Your task to perform on an android device: find photos in the google photos app Image 0: 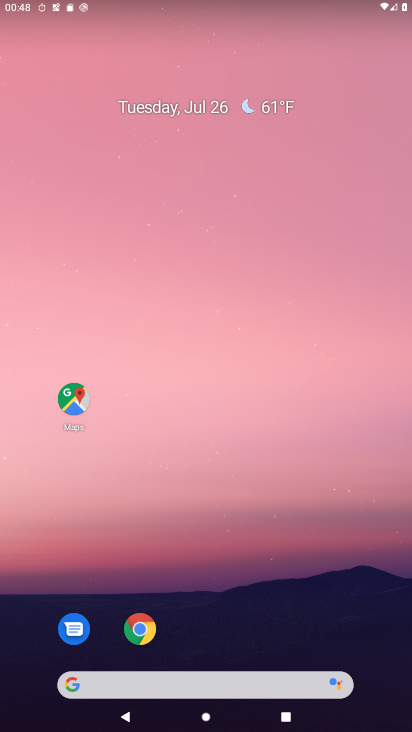
Step 0: drag from (215, 634) to (221, 112)
Your task to perform on an android device: find photos in the google photos app Image 1: 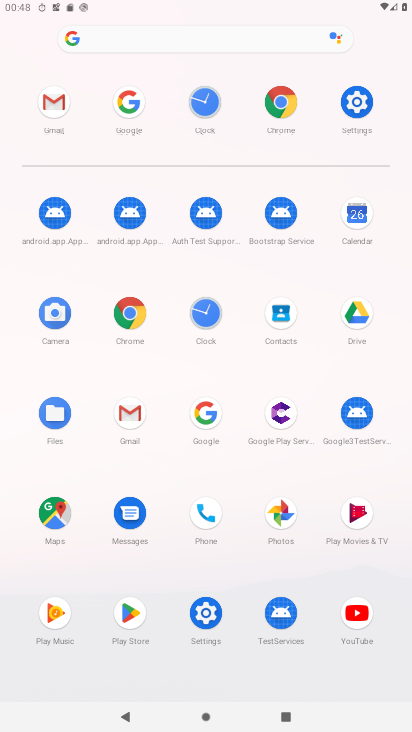
Step 1: click (272, 526)
Your task to perform on an android device: find photos in the google photos app Image 2: 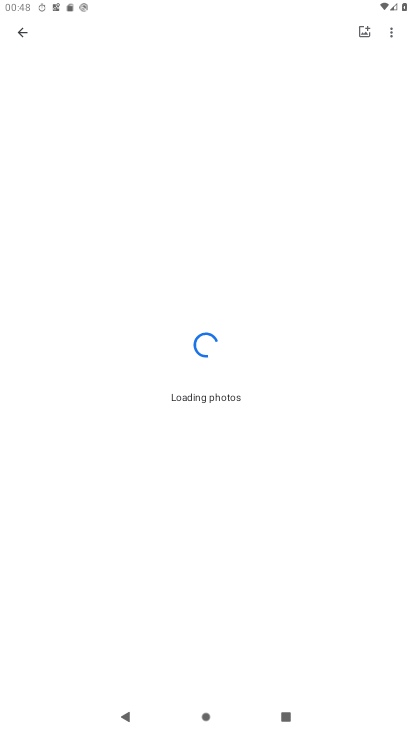
Step 2: click (29, 37)
Your task to perform on an android device: find photos in the google photos app Image 3: 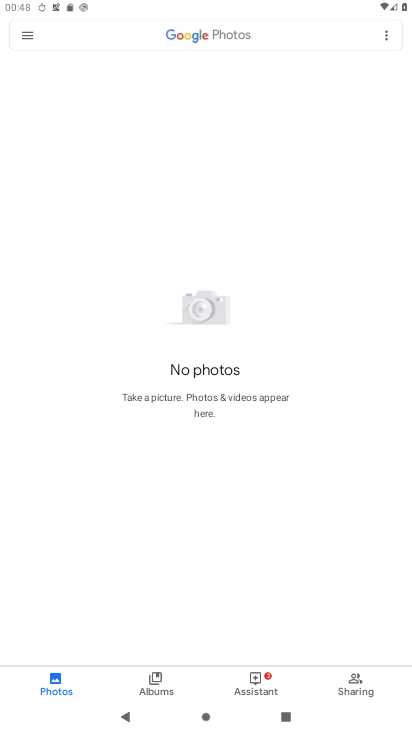
Step 3: click (150, 38)
Your task to perform on an android device: find photos in the google photos app Image 4: 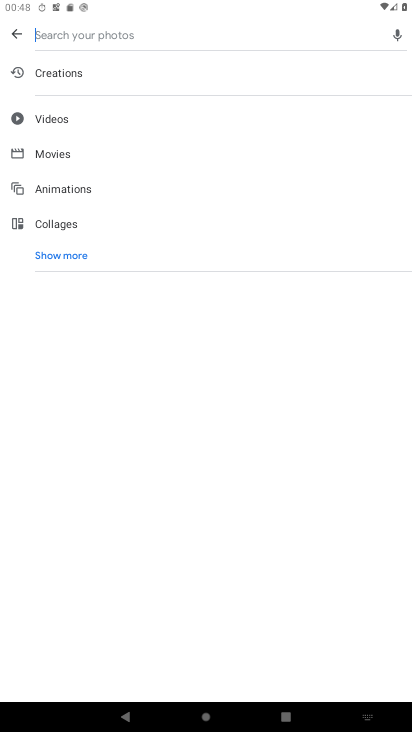
Step 4: type "aaa"
Your task to perform on an android device: find photos in the google photos app Image 5: 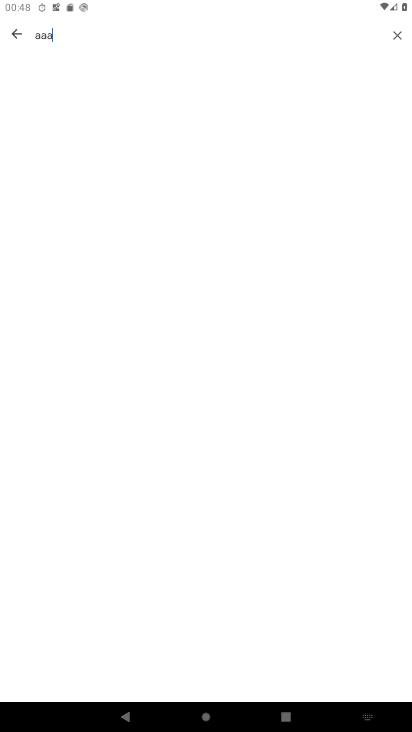
Step 5: type ""
Your task to perform on an android device: find photos in the google photos app Image 6: 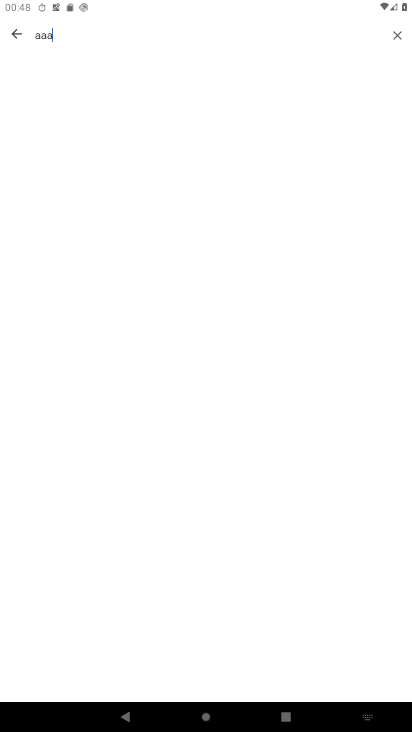
Step 6: task complete